Your task to perform on an android device: Show me productivity apps on the Play Store Image 0: 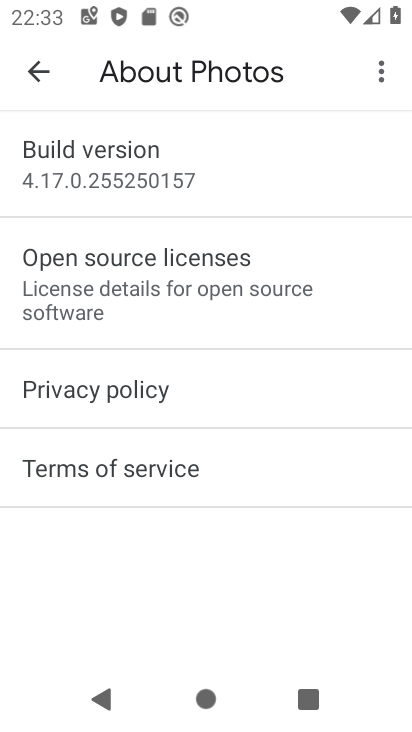
Step 0: click (42, 67)
Your task to perform on an android device: Show me productivity apps on the Play Store Image 1: 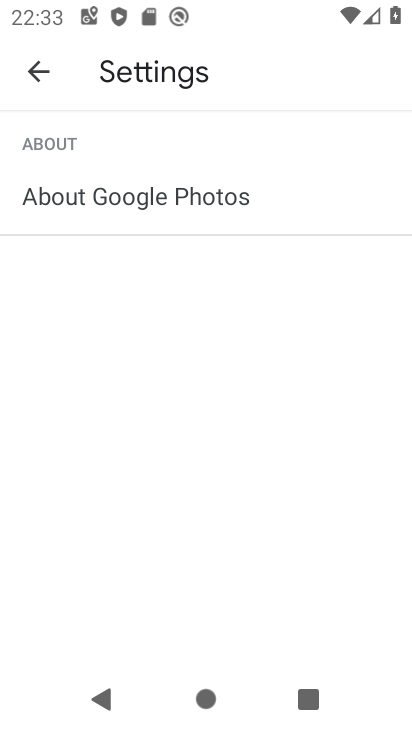
Step 1: press home button
Your task to perform on an android device: Show me productivity apps on the Play Store Image 2: 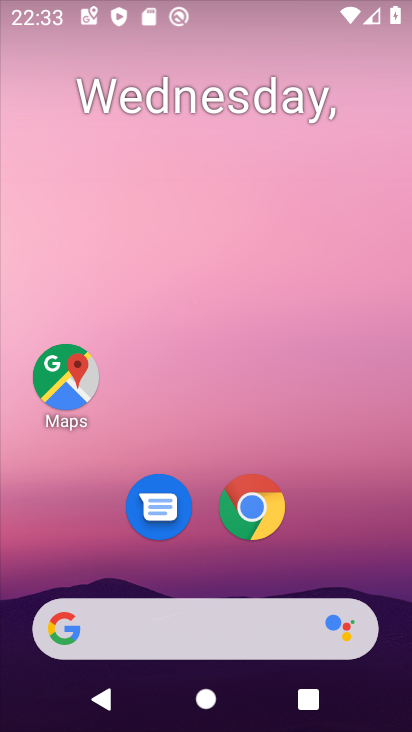
Step 2: drag from (251, 599) to (291, 232)
Your task to perform on an android device: Show me productivity apps on the Play Store Image 3: 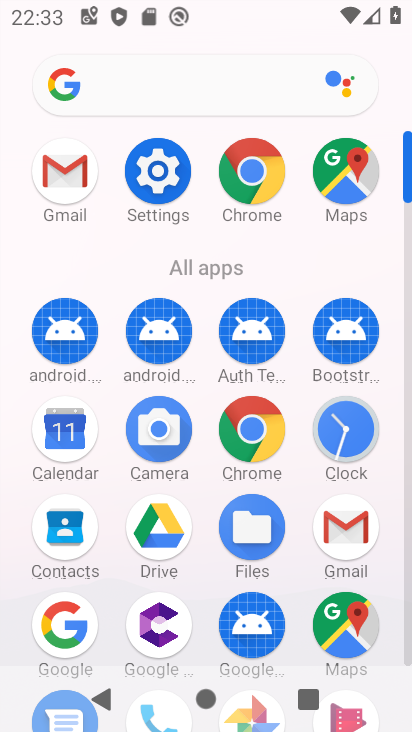
Step 3: drag from (202, 630) to (250, 307)
Your task to perform on an android device: Show me productivity apps on the Play Store Image 4: 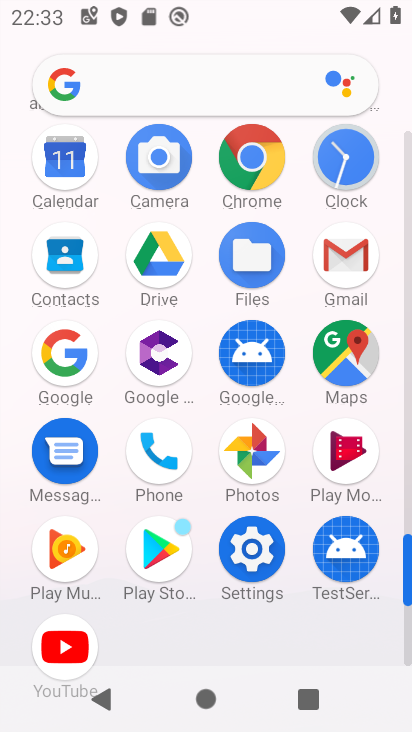
Step 4: click (148, 554)
Your task to perform on an android device: Show me productivity apps on the Play Store Image 5: 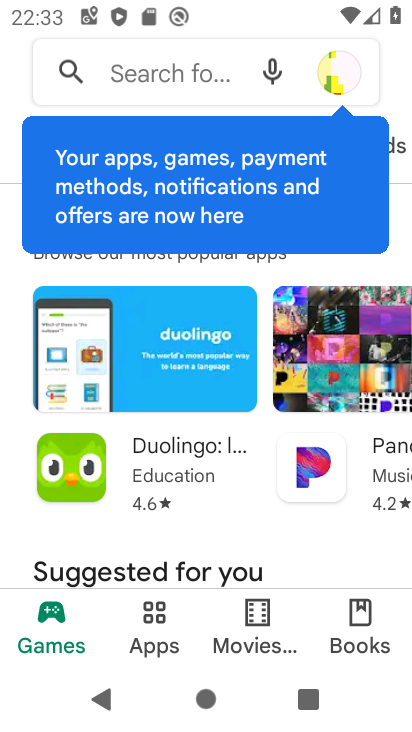
Step 5: click (158, 615)
Your task to perform on an android device: Show me productivity apps on the Play Store Image 6: 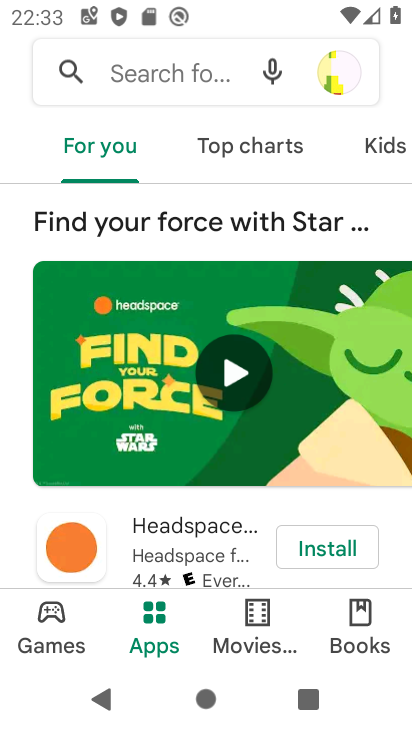
Step 6: task complete